Your task to perform on an android device: Open accessibility settings Image 0: 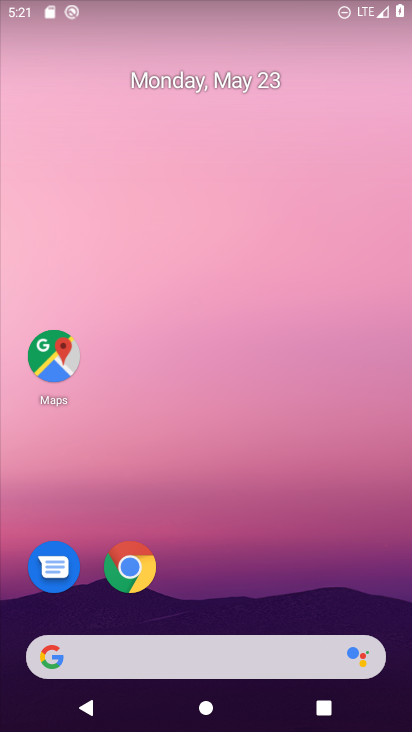
Step 0: drag from (272, 545) to (226, 102)
Your task to perform on an android device: Open accessibility settings Image 1: 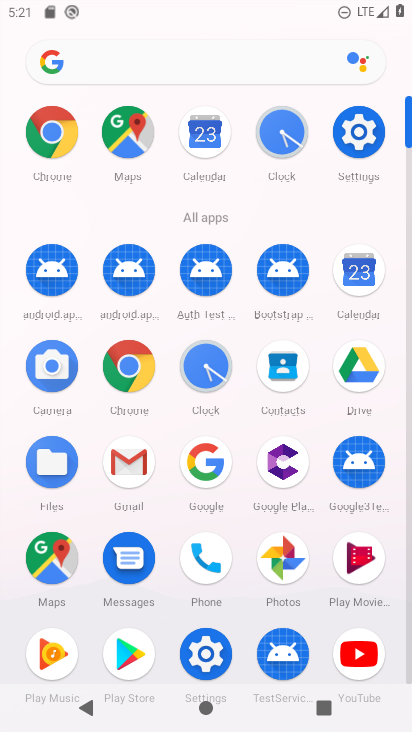
Step 1: click (357, 128)
Your task to perform on an android device: Open accessibility settings Image 2: 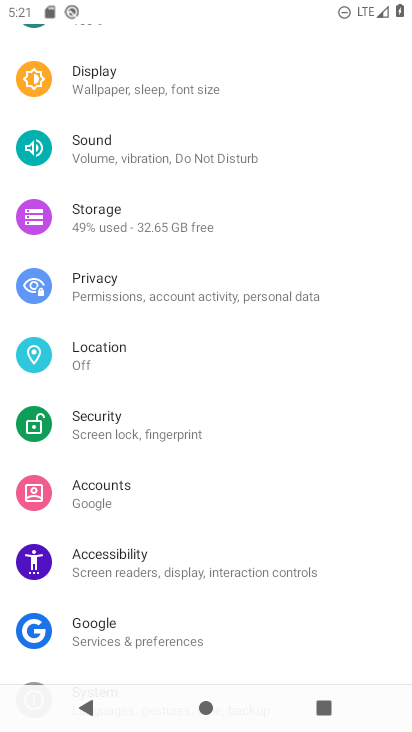
Step 2: click (113, 567)
Your task to perform on an android device: Open accessibility settings Image 3: 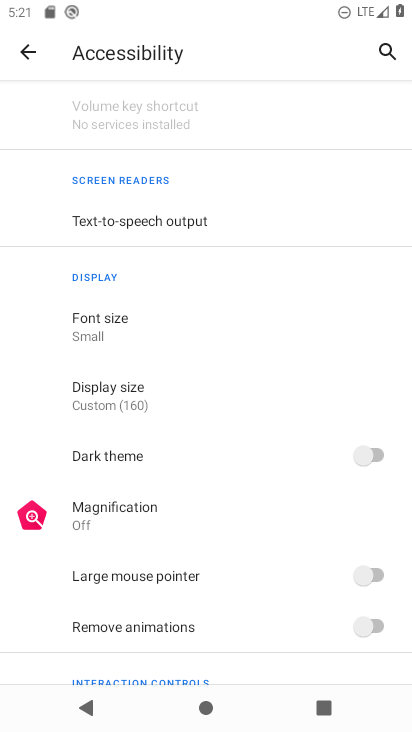
Step 3: task complete